Your task to perform on an android device: add a label to a message in the gmail app Image 0: 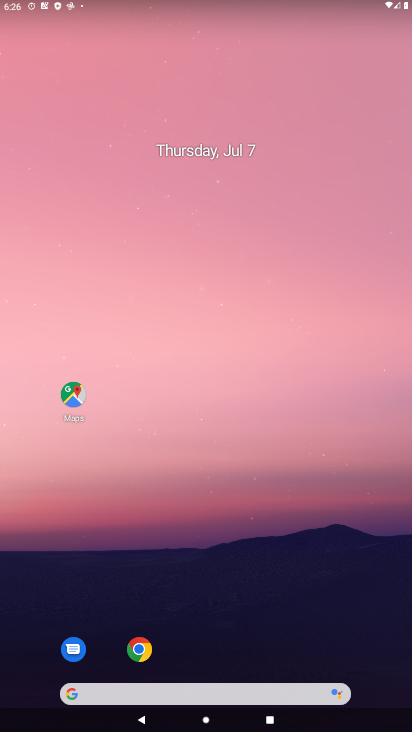
Step 0: drag from (386, 691) to (185, 4)
Your task to perform on an android device: add a label to a message in the gmail app Image 1: 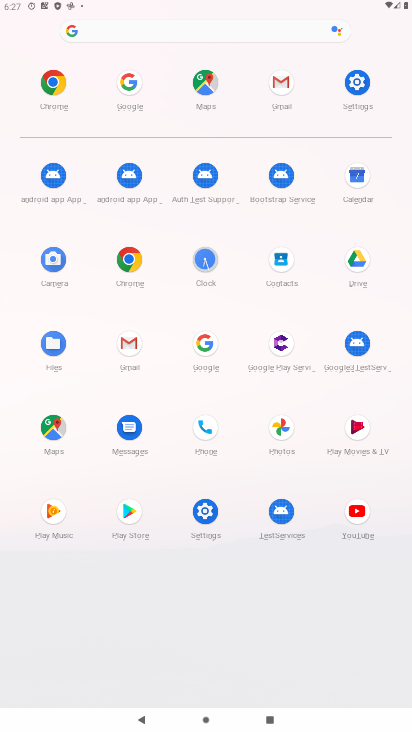
Step 1: click (126, 349)
Your task to perform on an android device: add a label to a message in the gmail app Image 2: 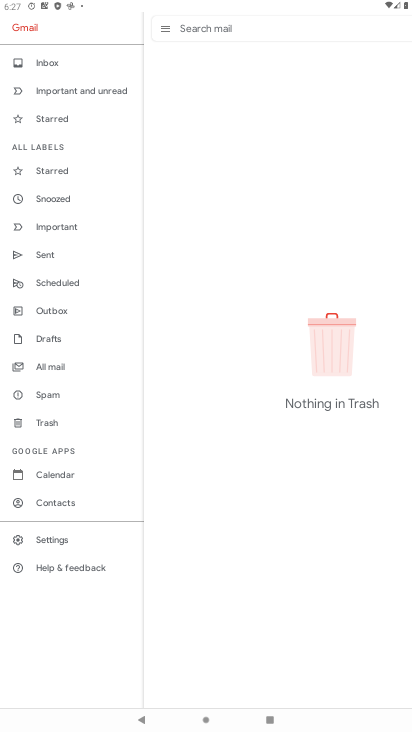
Step 2: task complete